Your task to perform on an android device: Show me recent news Image 0: 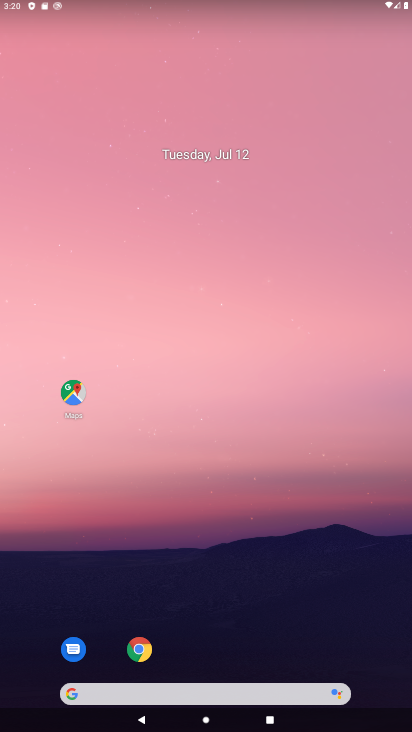
Step 0: drag from (10, 316) to (376, 337)
Your task to perform on an android device: Show me recent news Image 1: 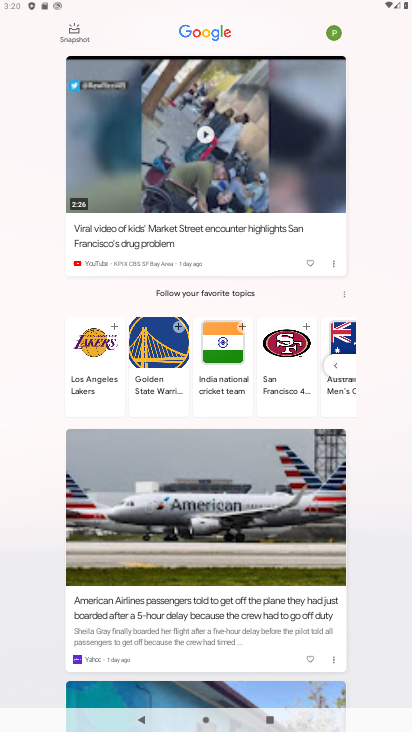
Step 1: task complete